Your task to perform on an android device: all mails in gmail Image 0: 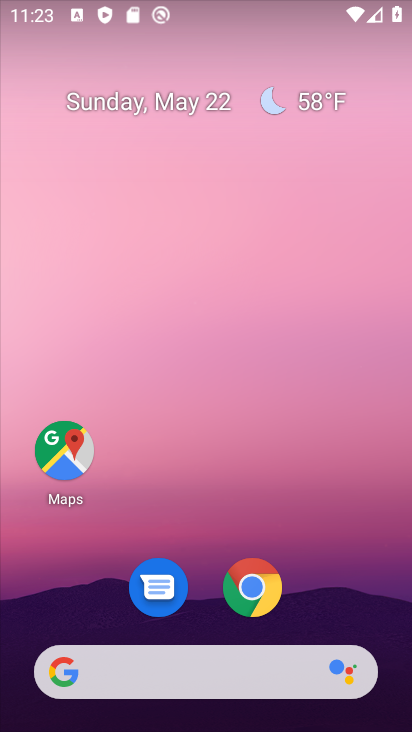
Step 0: drag from (199, 480) to (279, 2)
Your task to perform on an android device: all mails in gmail Image 1: 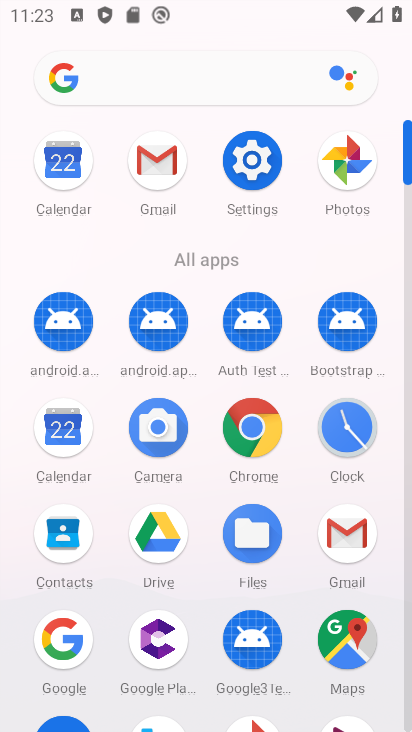
Step 1: click (164, 172)
Your task to perform on an android device: all mails in gmail Image 2: 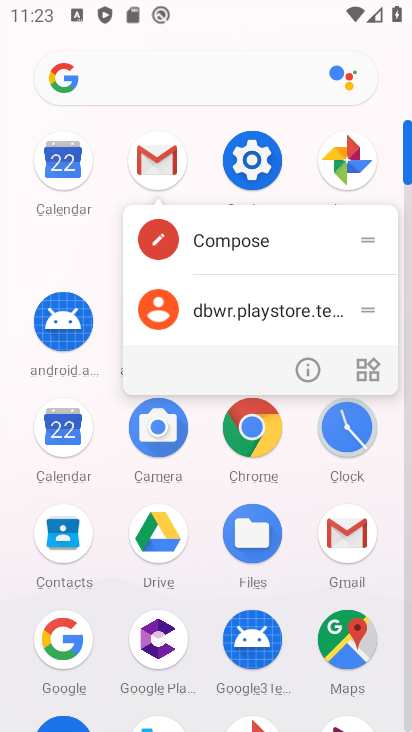
Step 2: click (156, 153)
Your task to perform on an android device: all mails in gmail Image 3: 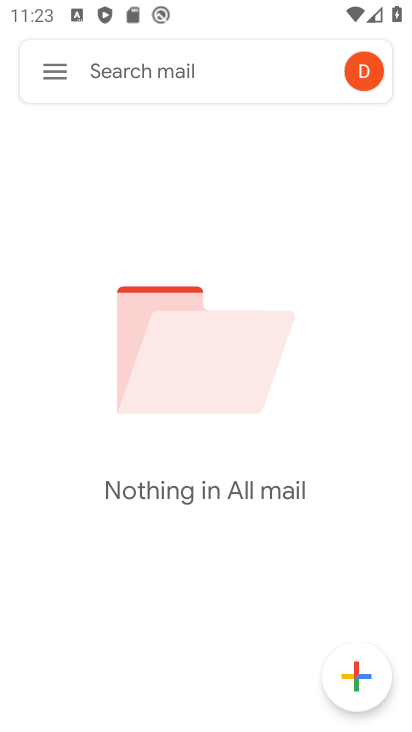
Step 3: click (58, 73)
Your task to perform on an android device: all mails in gmail Image 4: 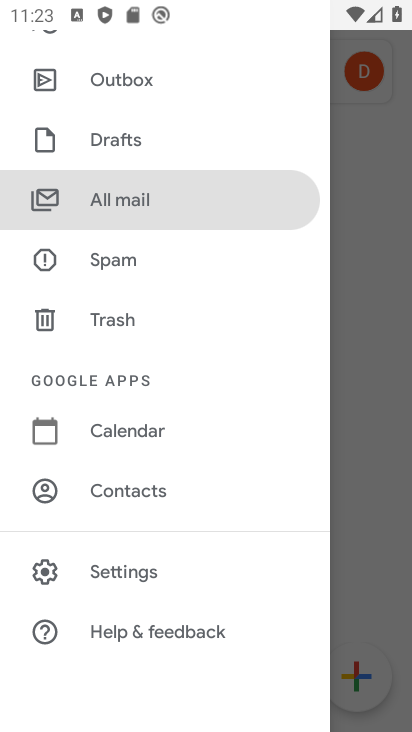
Step 4: click (160, 189)
Your task to perform on an android device: all mails in gmail Image 5: 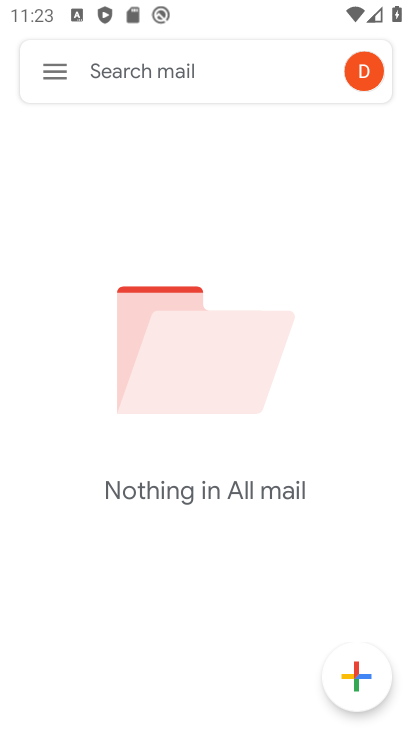
Step 5: task complete